Your task to perform on an android device: Open the web browser Image 0: 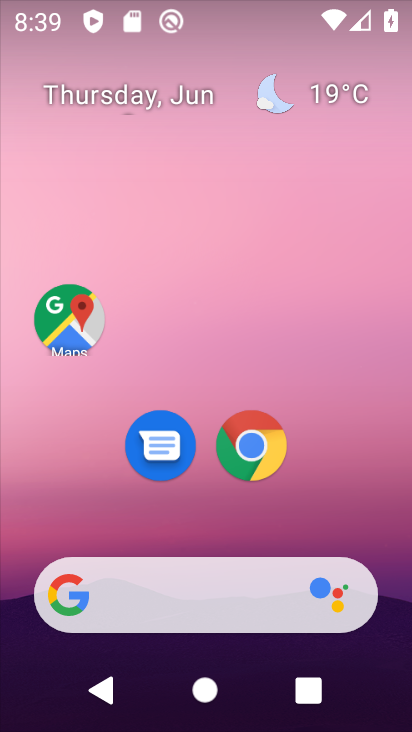
Step 0: click (247, 444)
Your task to perform on an android device: Open the web browser Image 1: 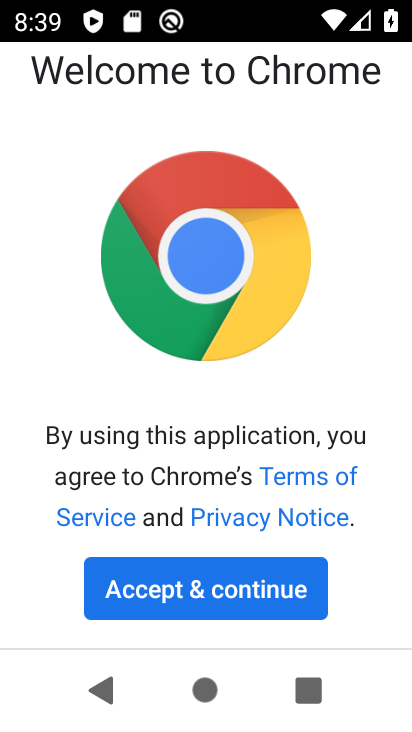
Step 1: click (220, 590)
Your task to perform on an android device: Open the web browser Image 2: 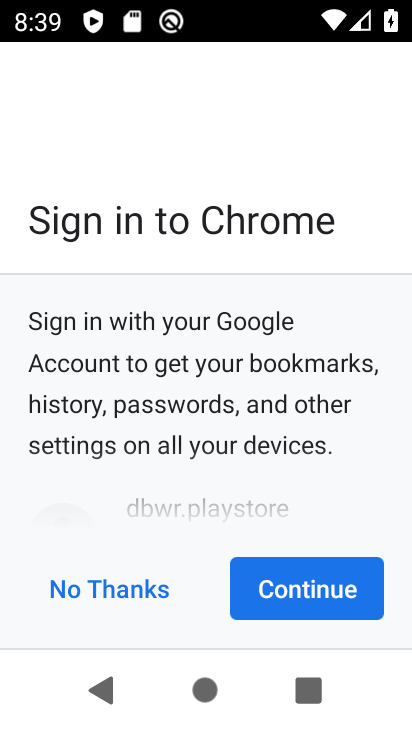
Step 2: click (265, 601)
Your task to perform on an android device: Open the web browser Image 3: 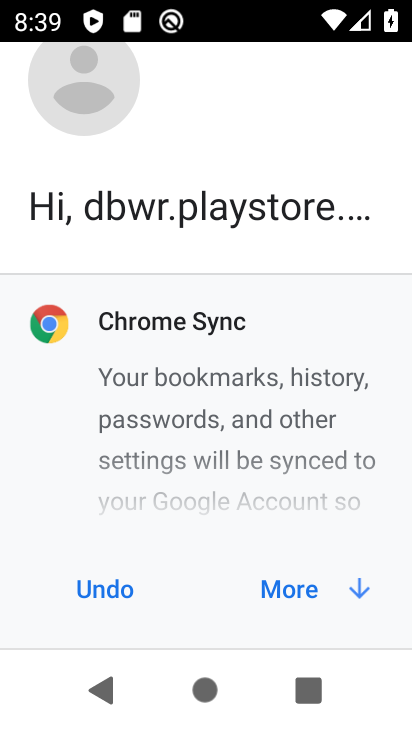
Step 3: click (299, 592)
Your task to perform on an android device: Open the web browser Image 4: 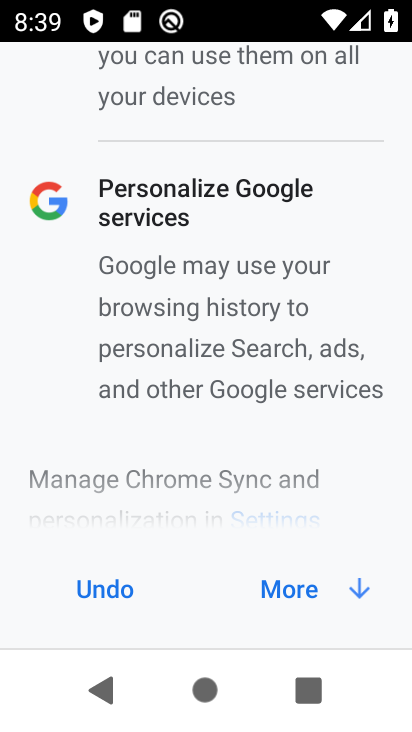
Step 4: click (299, 592)
Your task to perform on an android device: Open the web browser Image 5: 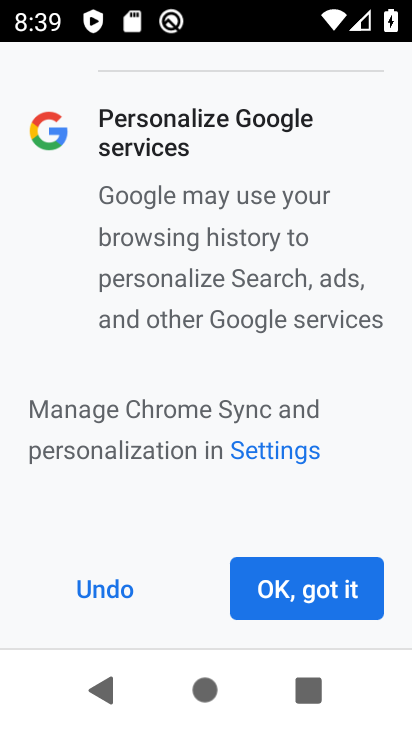
Step 5: click (299, 592)
Your task to perform on an android device: Open the web browser Image 6: 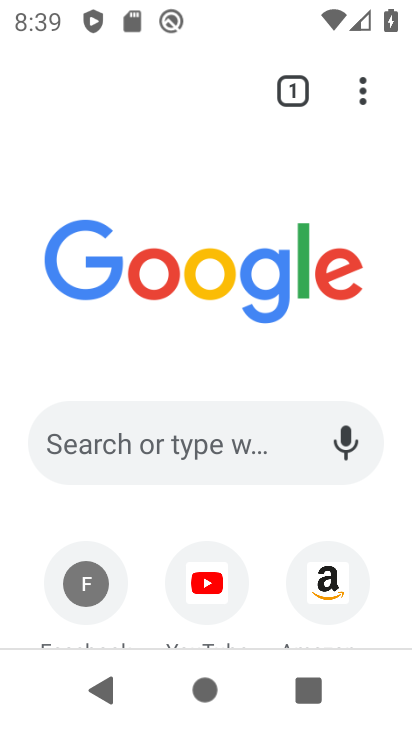
Step 6: task complete